Your task to perform on an android device: Open the phone app and click the voicemail tab. Image 0: 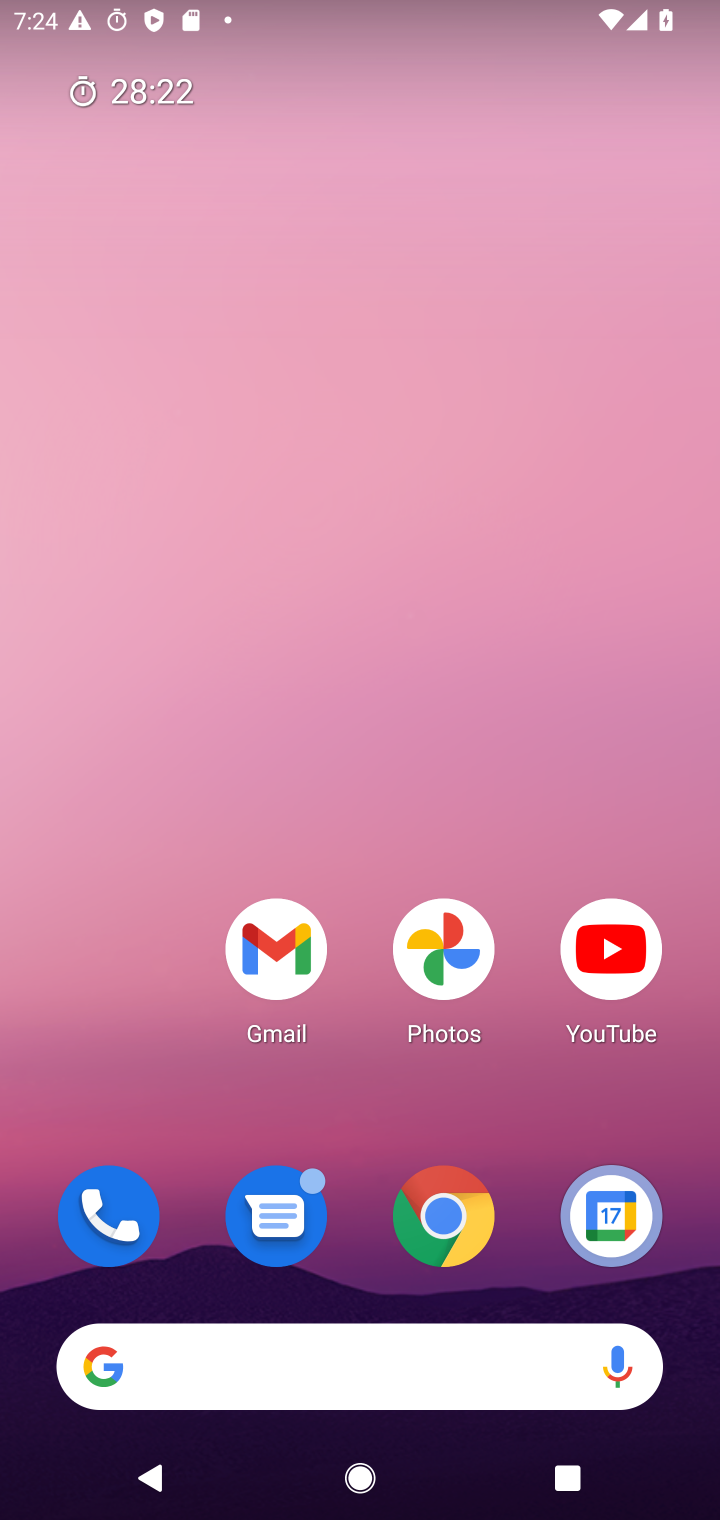
Step 0: drag from (368, 1156) to (339, 0)
Your task to perform on an android device: Open the phone app and click the voicemail tab. Image 1: 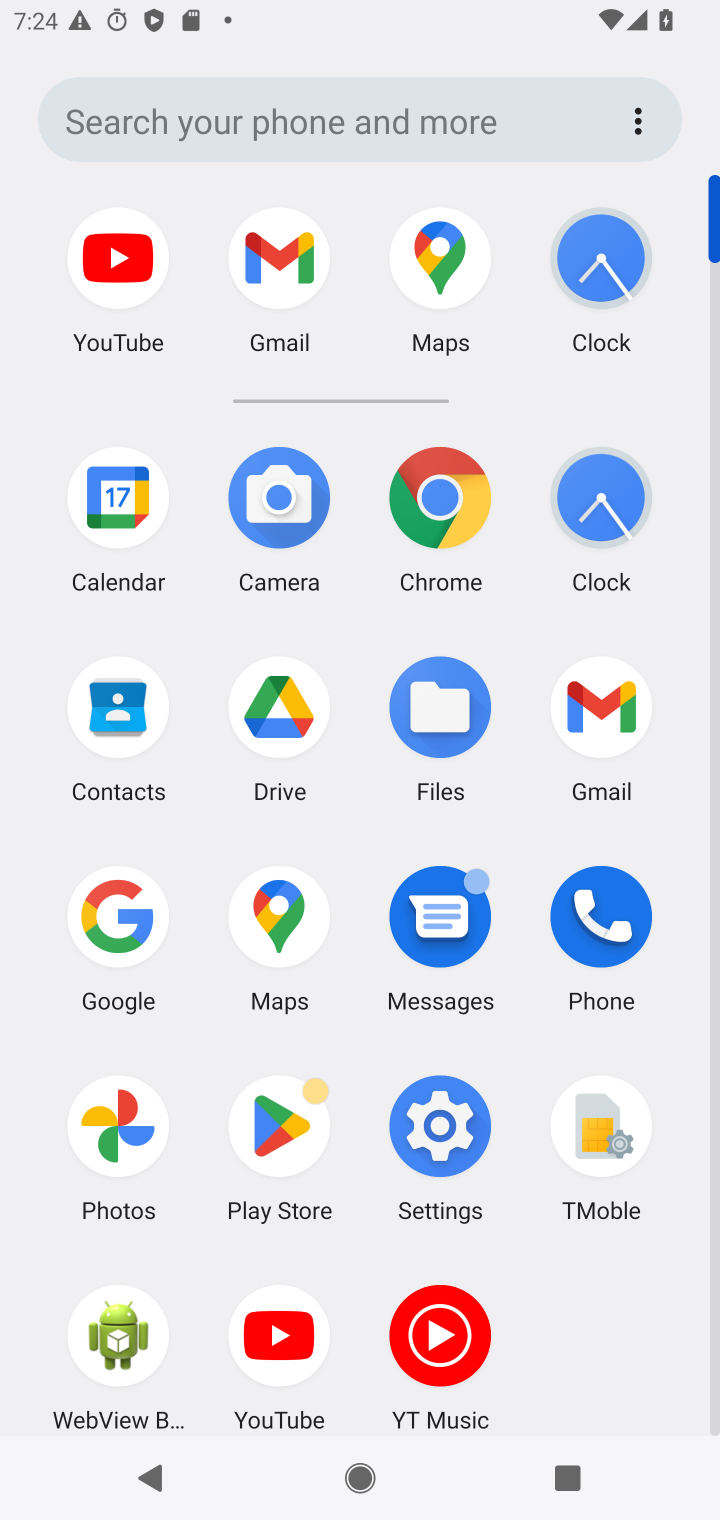
Step 1: click (608, 893)
Your task to perform on an android device: Open the phone app and click the voicemail tab. Image 2: 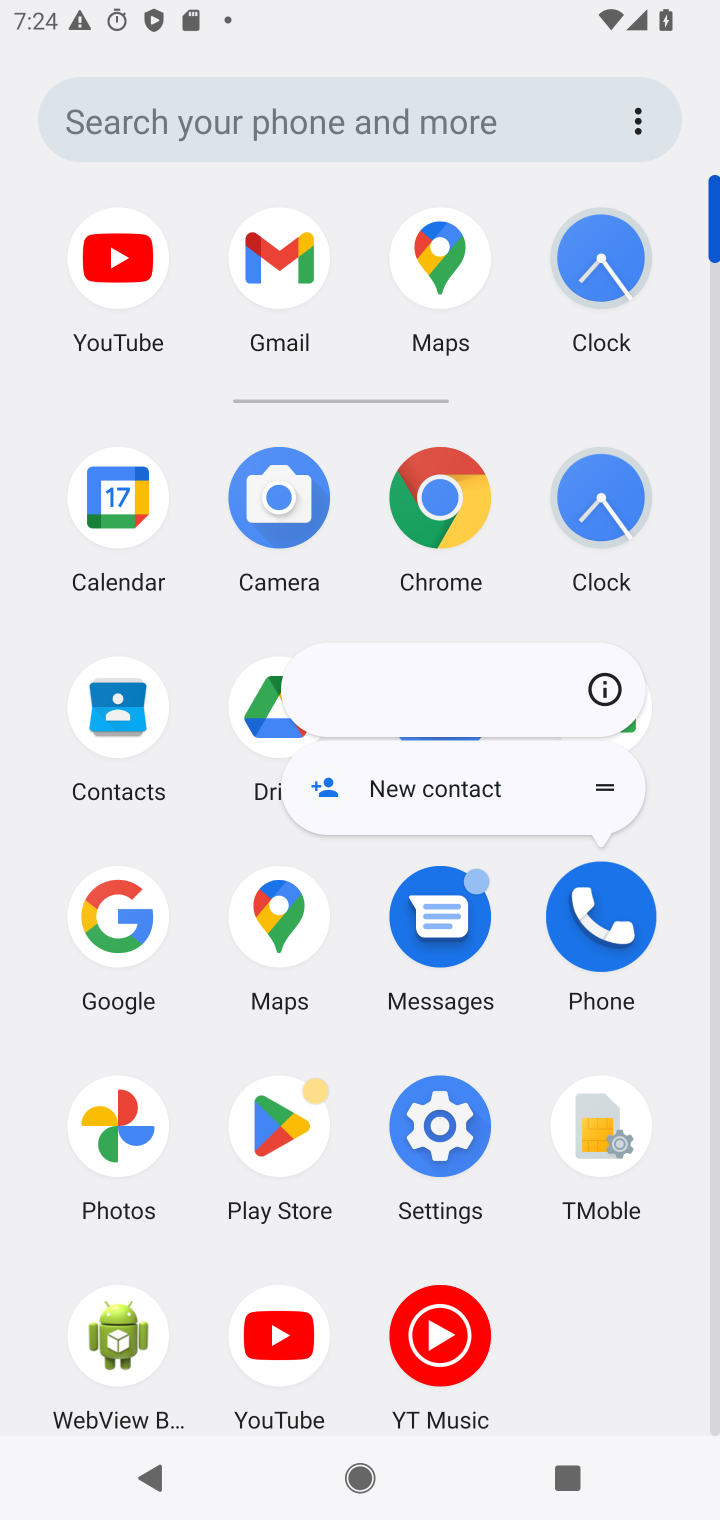
Step 2: click (608, 893)
Your task to perform on an android device: Open the phone app and click the voicemail tab. Image 3: 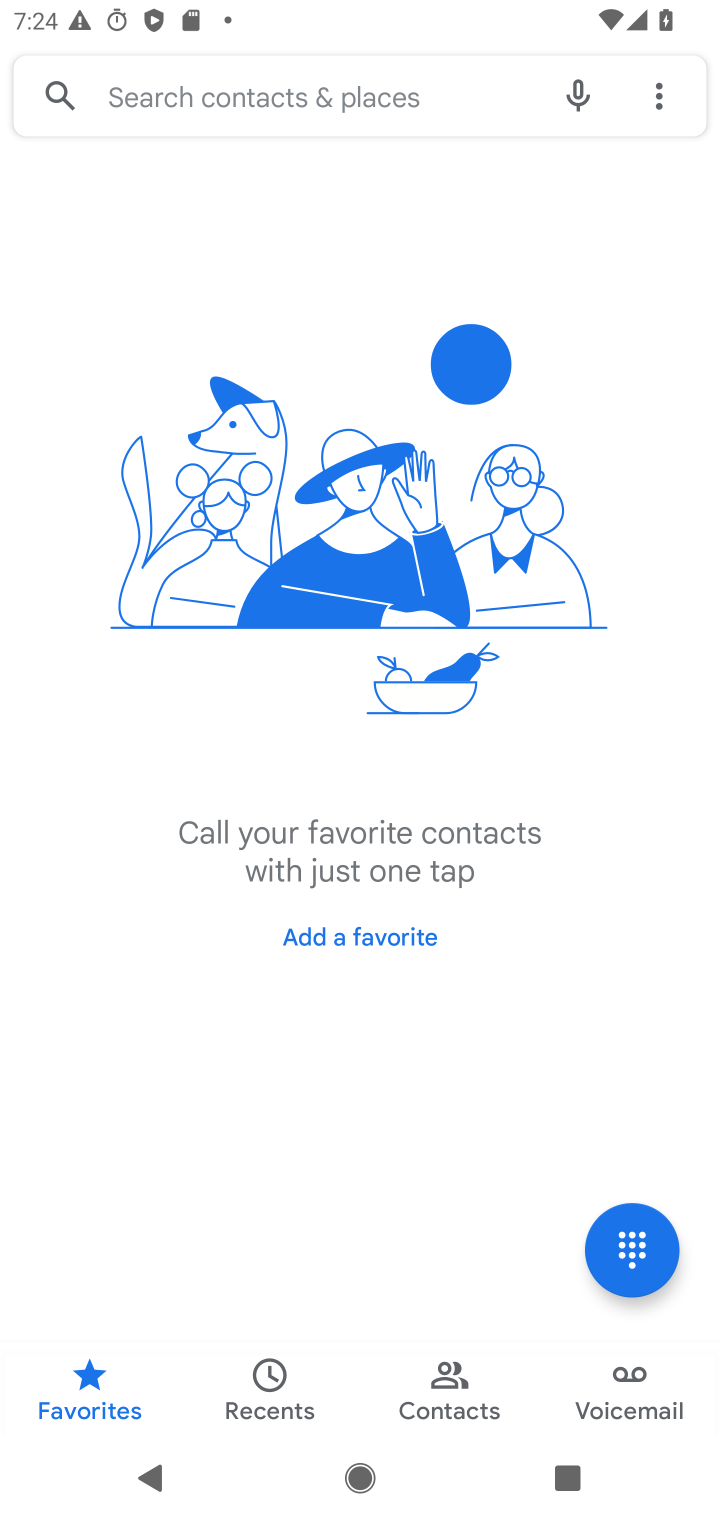
Step 3: click (642, 1382)
Your task to perform on an android device: Open the phone app and click the voicemail tab. Image 4: 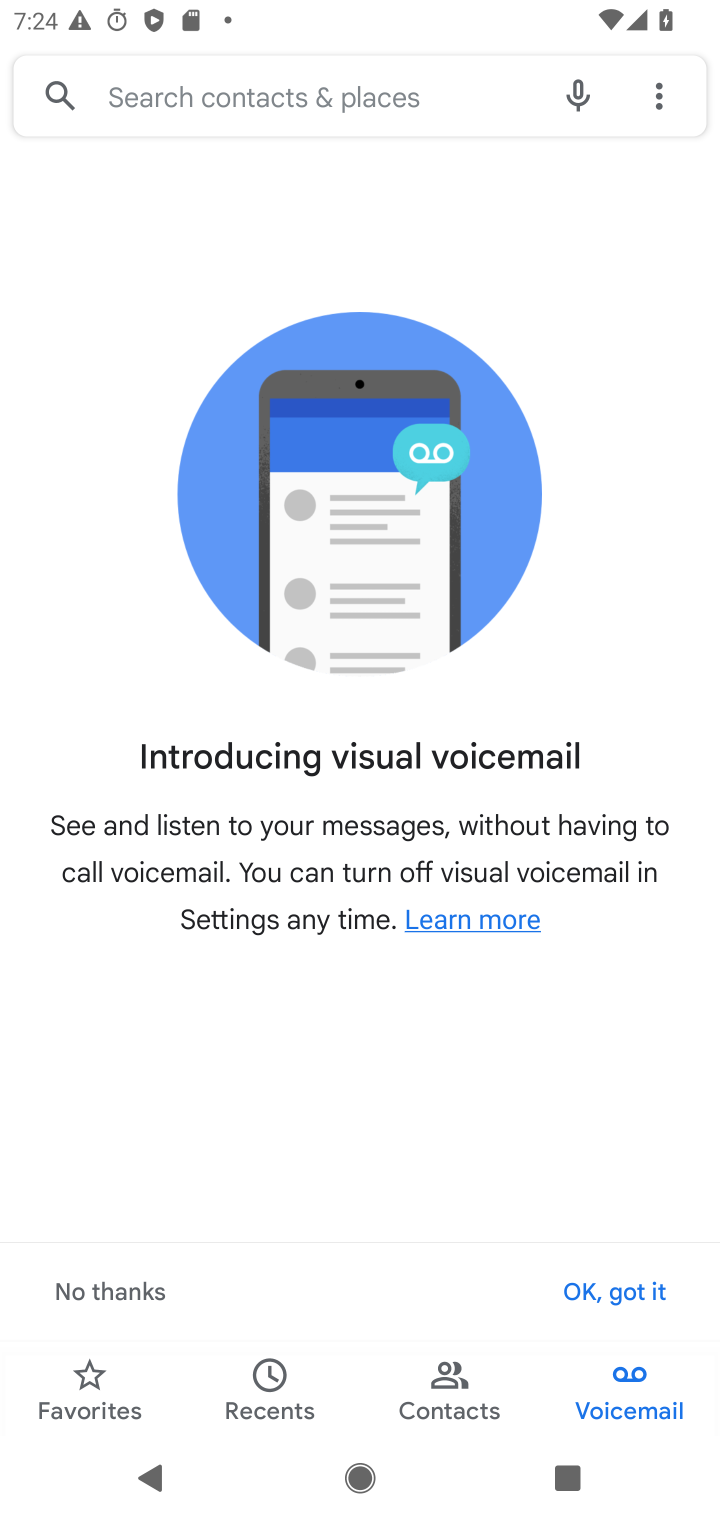
Step 4: task complete